Your task to perform on an android device: Search for Mexican restaurants on Maps Image 0: 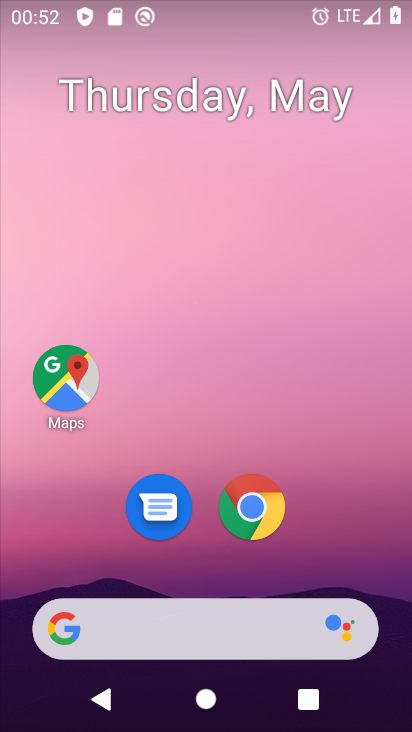
Step 0: click (92, 386)
Your task to perform on an android device: Search for Mexican restaurants on Maps Image 1: 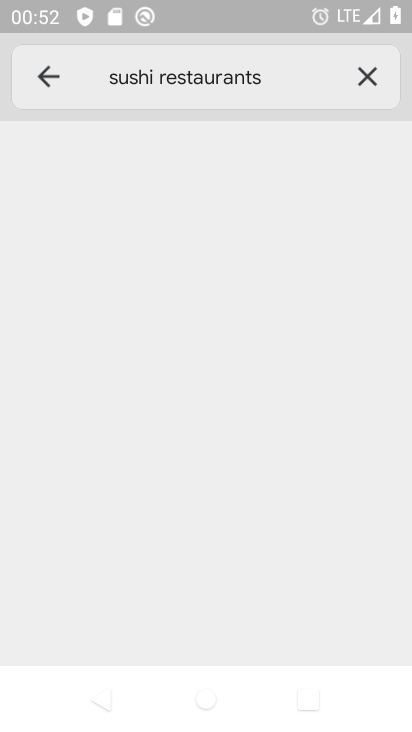
Step 1: click (370, 81)
Your task to perform on an android device: Search for Mexican restaurants on Maps Image 2: 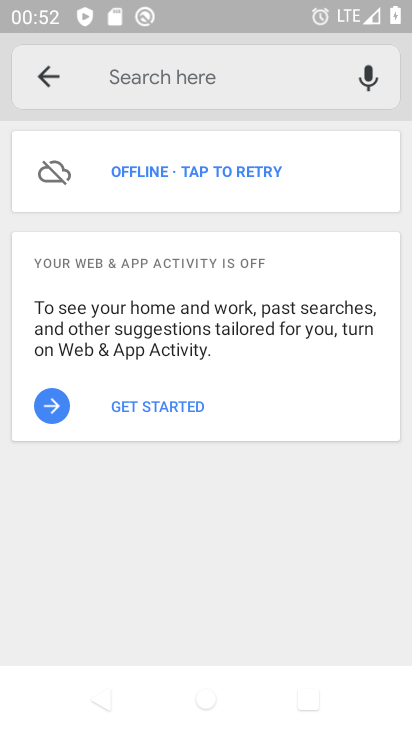
Step 2: click (123, 76)
Your task to perform on an android device: Search for Mexican restaurants on Maps Image 3: 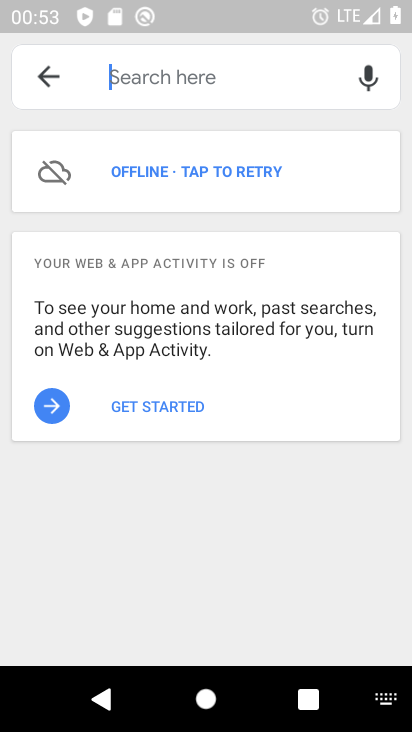
Step 3: type "Mexican restaurant"
Your task to perform on an android device: Search for Mexican restaurants on Maps Image 4: 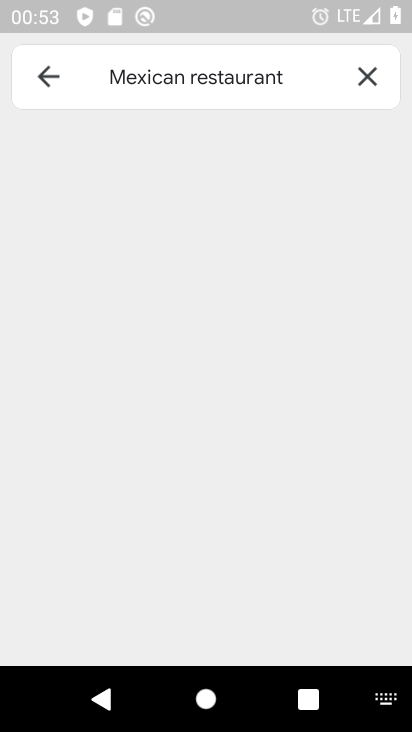
Step 4: task complete